Your task to perform on an android device: open app "Airtel Thanks" (install if not already installed) Image 0: 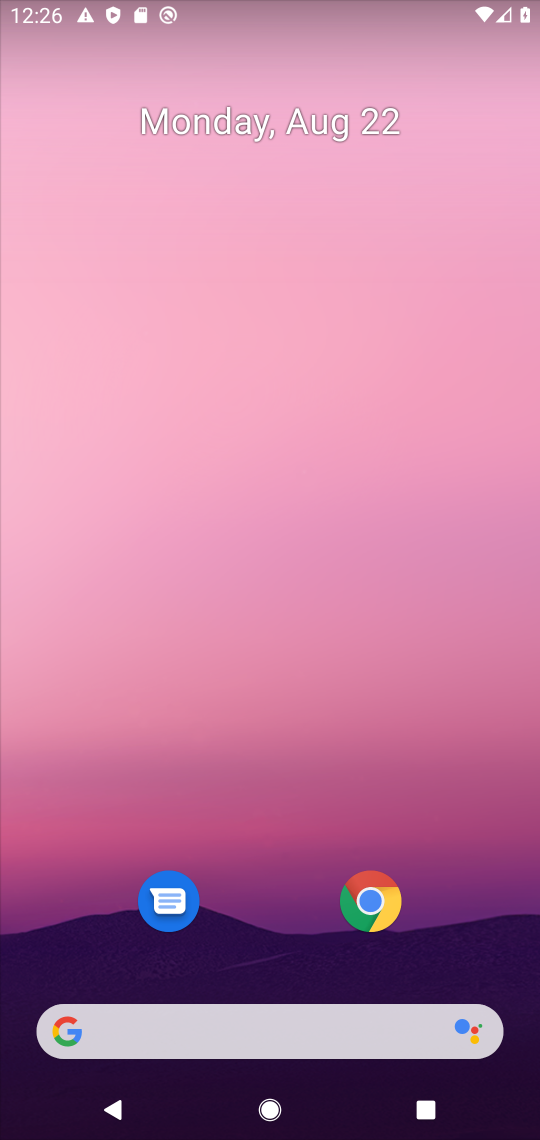
Step 0: drag from (249, 884) to (249, 119)
Your task to perform on an android device: open app "Airtel Thanks" (install if not already installed) Image 1: 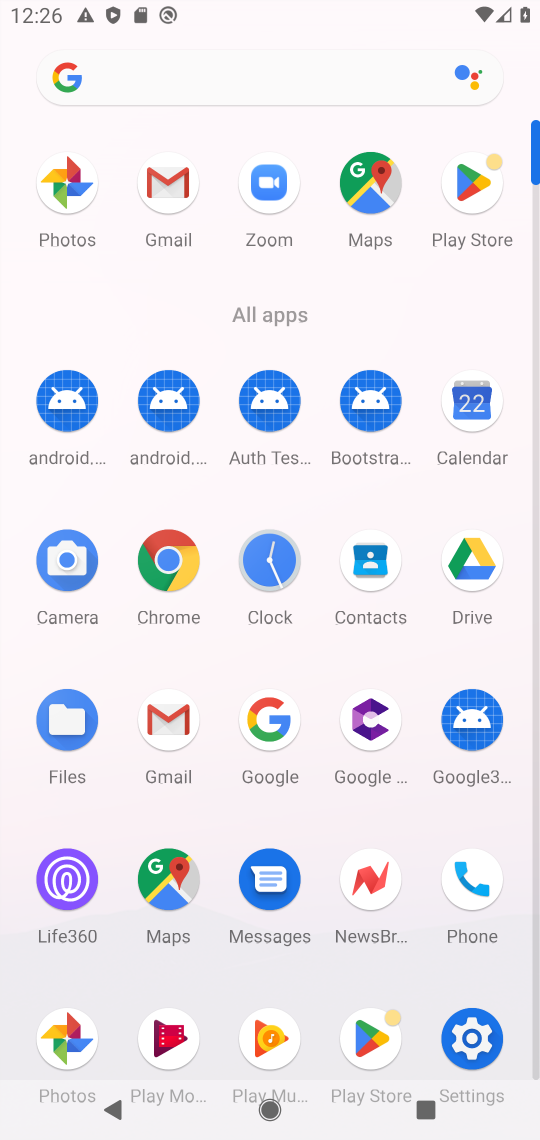
Step 1: click (483, 168)
Your task to perform on an android device: open app "Airtel Thanks" (install if not already installed) Image 2: 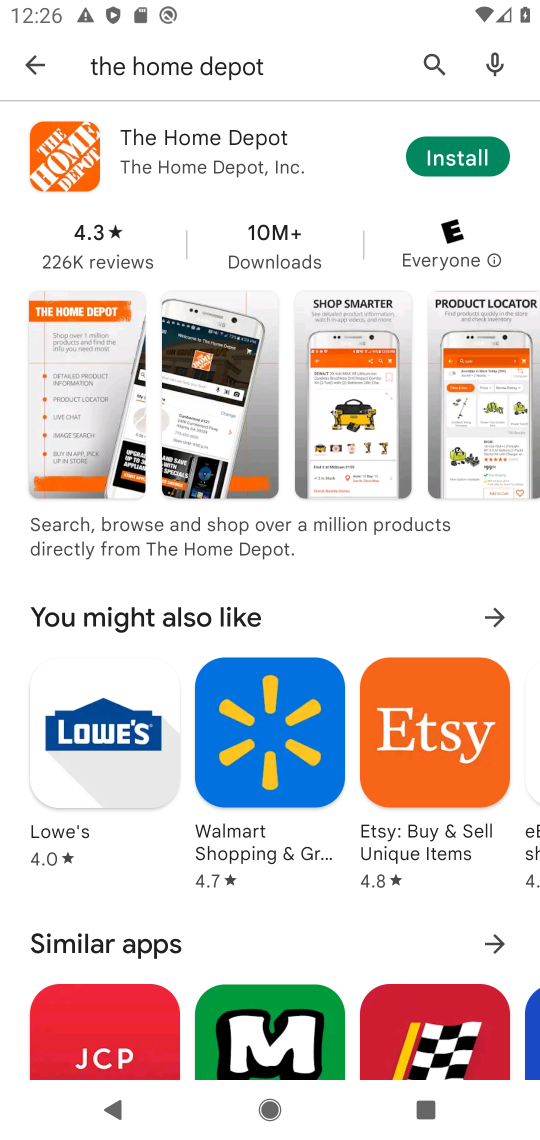
Step 2: click (440, 47)
Your task to perform on an android device: open app "Airtel Thanks" (install if not already installed) Image 3: 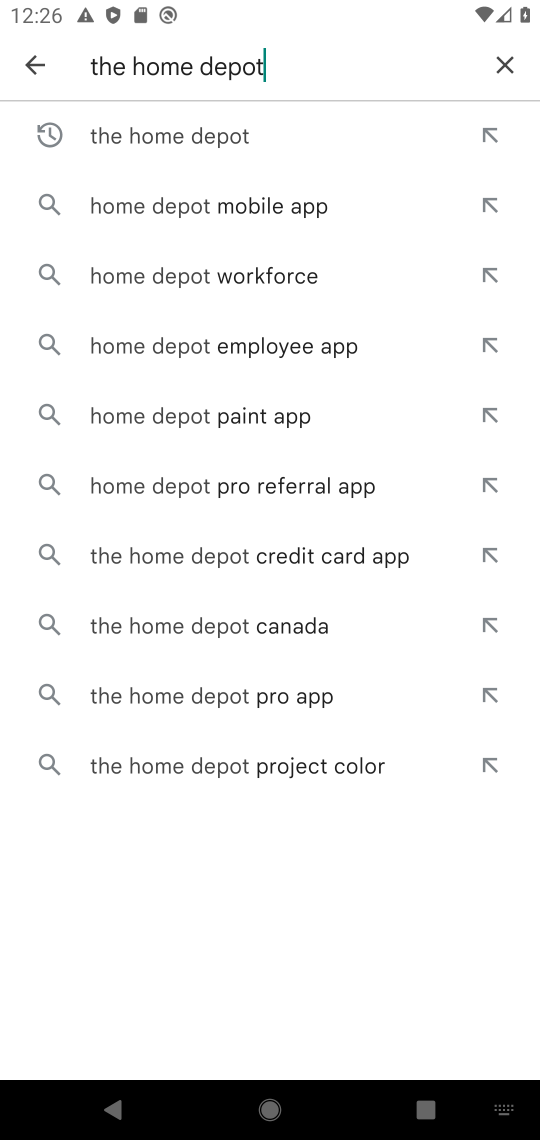
Step 3: click (505, 54)
Your task to perform on an android device: open app "Airtel Thanks" (install if not already installed) Image 4: 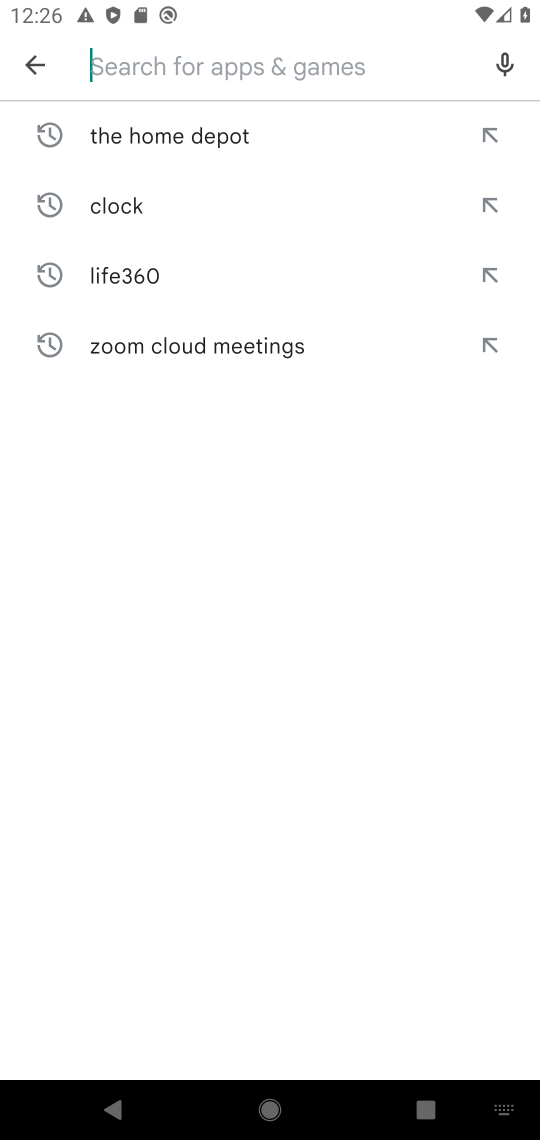
Step 4: type "airtel thanks"
Your task to perform on an android device: open app "Airtel Thanks" (install if not already installed) Image 5: 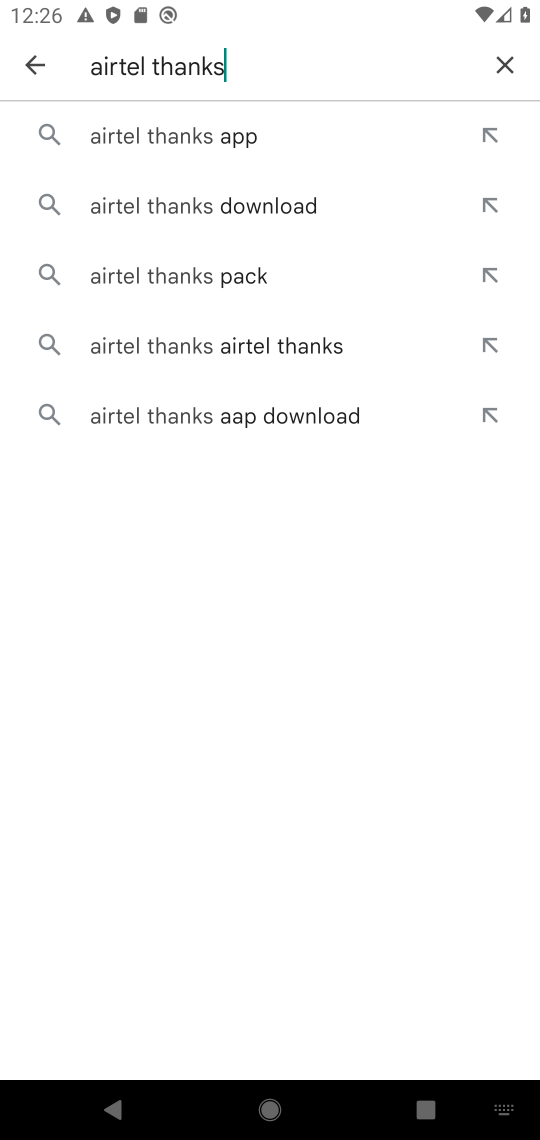
Step 5: click (254, 134)
Your task to perform on an android device: open app "Airtel Thanks" (install if not already installed) Image 6: 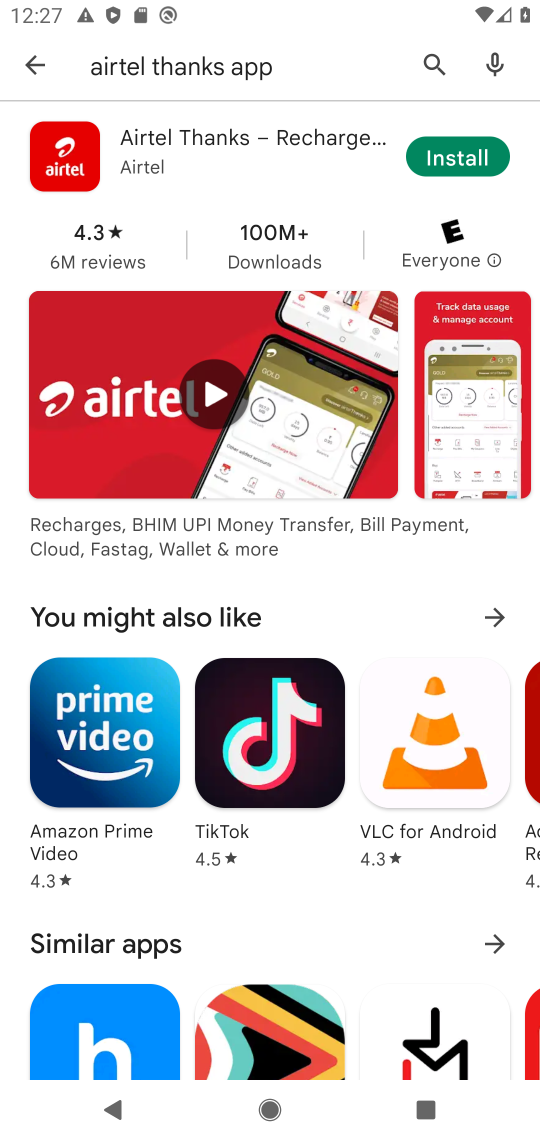
Step 6: click (441, 149)
Your task to perform on an android device: open app "Airtel Thanks" (install if not already installed) Image 7: 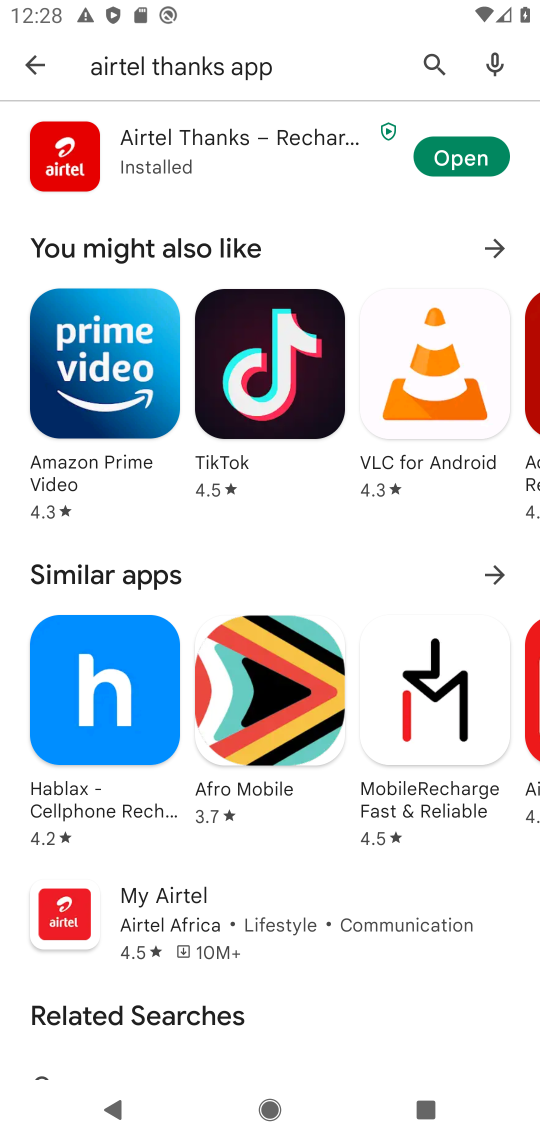
Step 7: click (430, 161)
Your task to perform on an android device: open app "Airtel Thanks" (install if not already installed) Image 8: 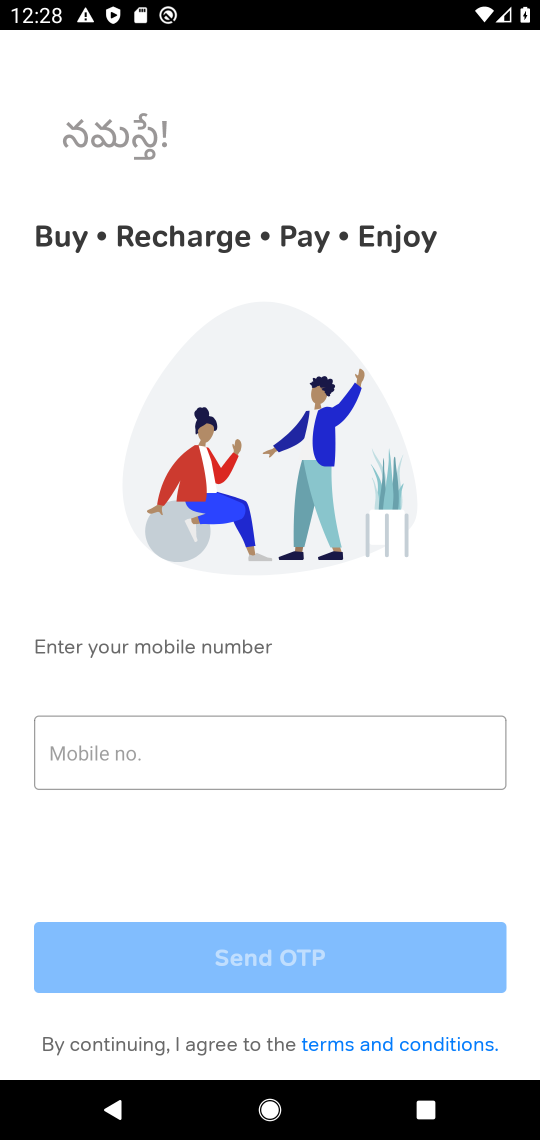
Step 8: task complete